Your task to perform on an android device: turn off notifications settings in the gmail app Image 0: 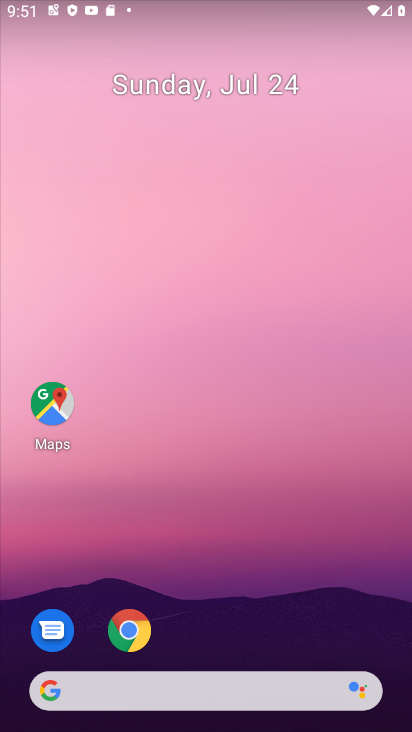
Step 0: drag from (196, 566) to (196, 78)
Your task to perform on an android device: turn off notifications settings in the gmail app Image 1: 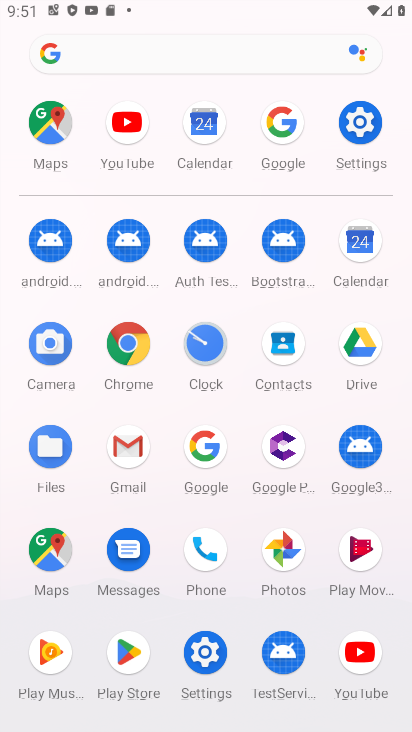
Step 1: click (137, 449)
Your task to perform on an android device: turn off notifications settings in the gmail app Image 2: 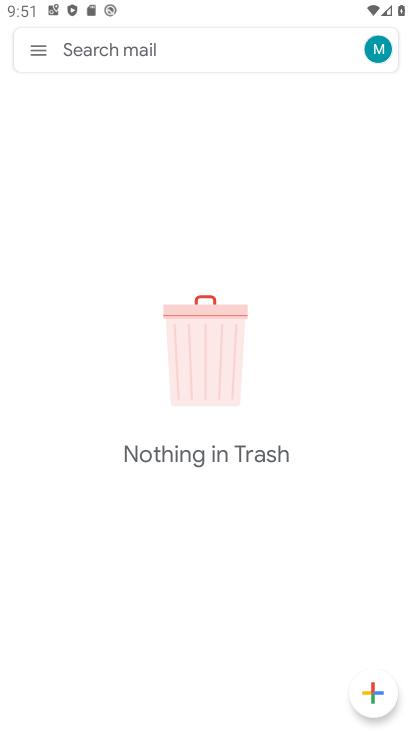
Step 2: click (39, 46)
Your task to perform on an android device: turn off notifications settings in the gmail app Image 3: 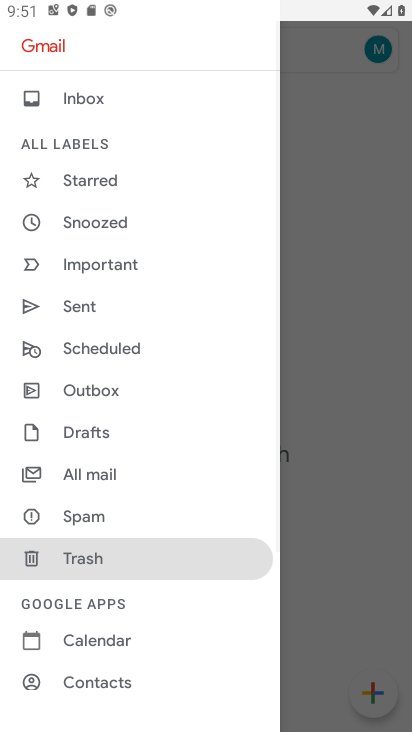
Step 3: drag from (93, 675) to (111, 261)
Your task to perform on an android device: turn off notifications settings in the gmail app Image 4: 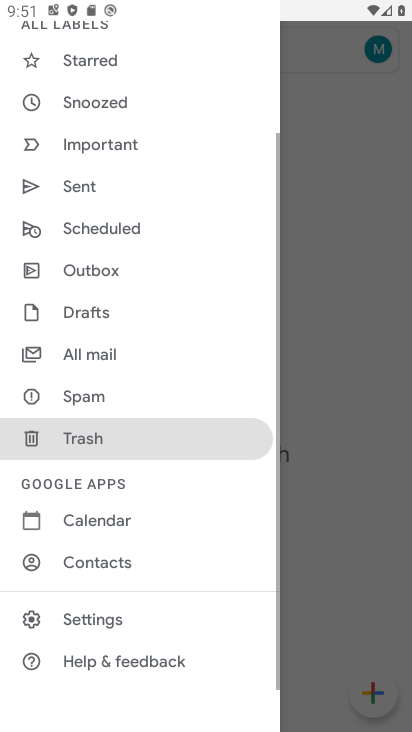
Step 4: click (66, 607)
Your task to perform on an android device: turn off notifications settings in the gmail app Image 5: 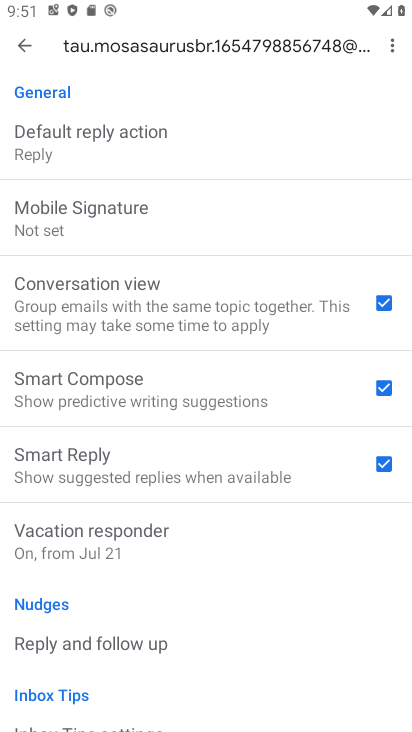
Step 5: drag from (188, 636) to (216, 282)
Your task to perform on an android device: turn off notifications settings in the gmail app Image 6: 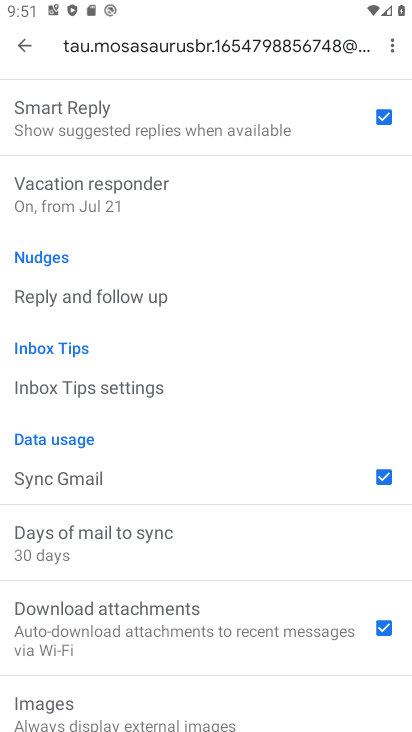
Step 6: drag from (154, 663) to (206, 256)
Your task to perform on an android device: turn off notifications settings in the gmail app Image 7: 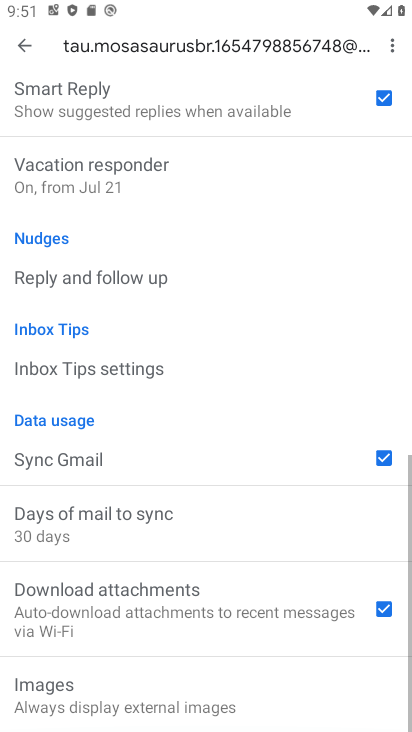
Step 7: drag from (211, 278) to (213, 635)
Your task to perform on an android device: turn off notifications settings in the gmail app Image 8: 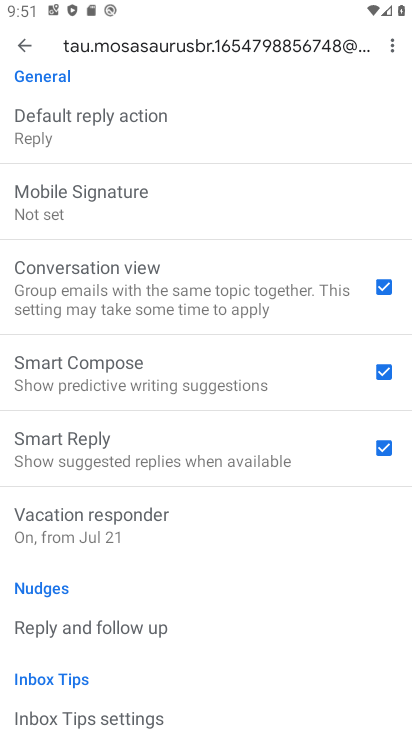
Step 8: drag from (190, 401) to (190, 623)
Your task to perform on an android device: turn off notifications settings in the gmail app Image 9: 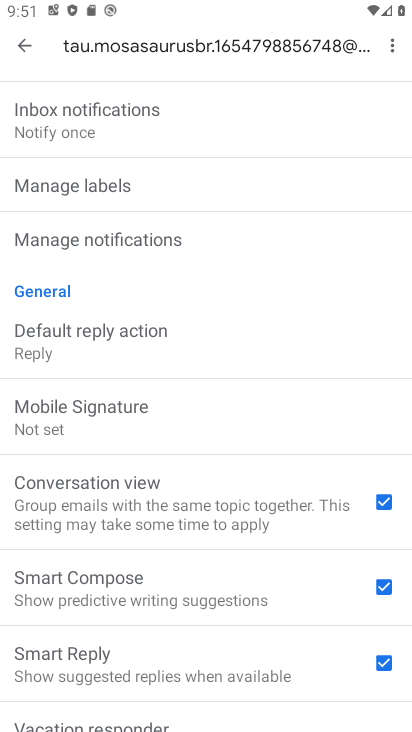
Step 9: click (135, 239)
Your task to perform on an android device: turn off notifications settings in the gmail app Image 10: 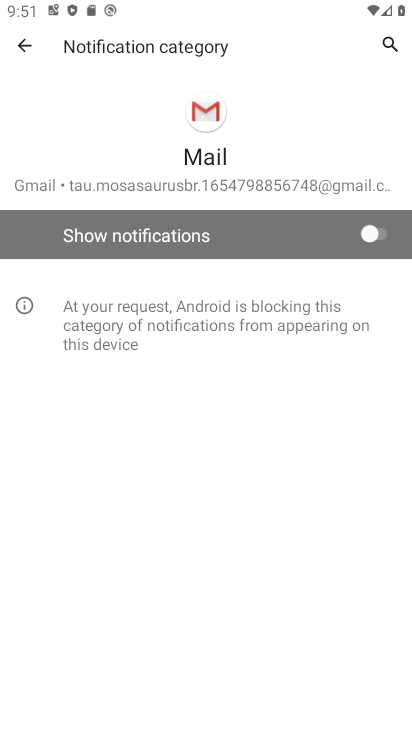
Step 10: task complete